Your task to perform on an android device: toggle notifications settings in the gmail app Image 0: 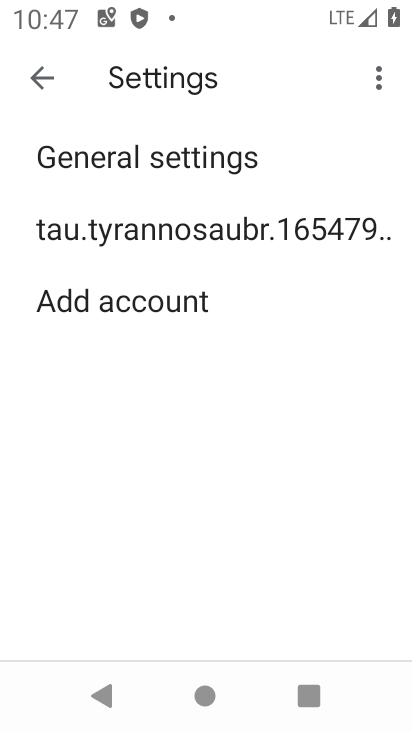
Step 0: press home button
Your task to perform on an android device: toggle notifications settings in the gmail app Image 1: 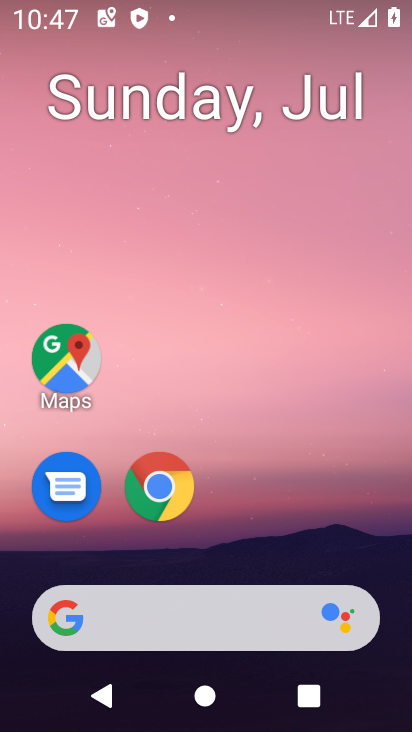
Step 1: drag from (312, 506) to (322, 172)
Your task to perform on an android device: toggle notifications settings in the gmail app Image 2: 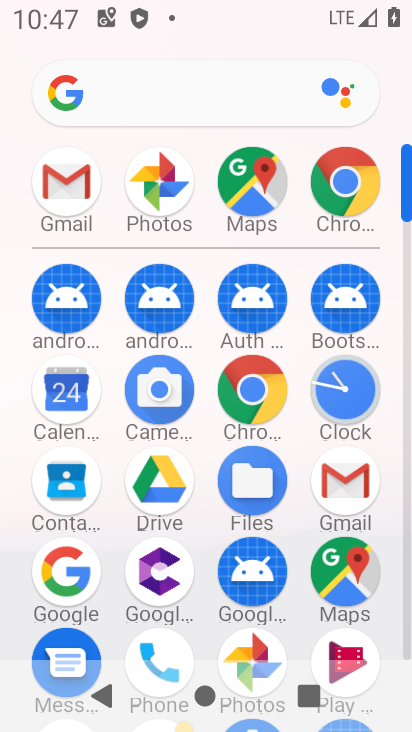
Step 2: click (341, 484)
Your task to perform on an android device: toggle notifications settings in the gmail app Image 3: 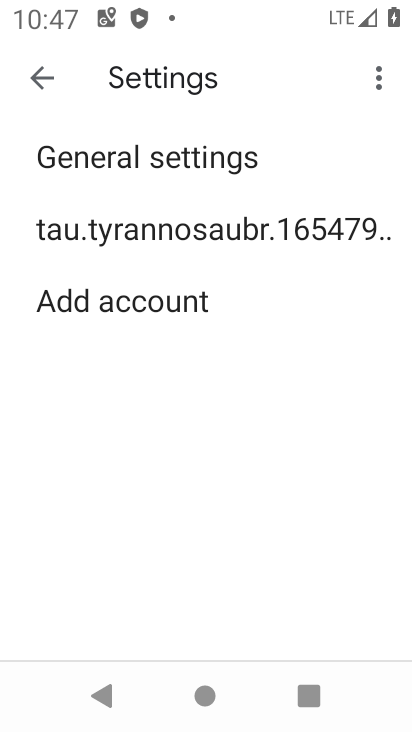
Step 3: click (265, 236)
Your task to perform on an android device: toggle notifications settings in the gmail app Image 4: 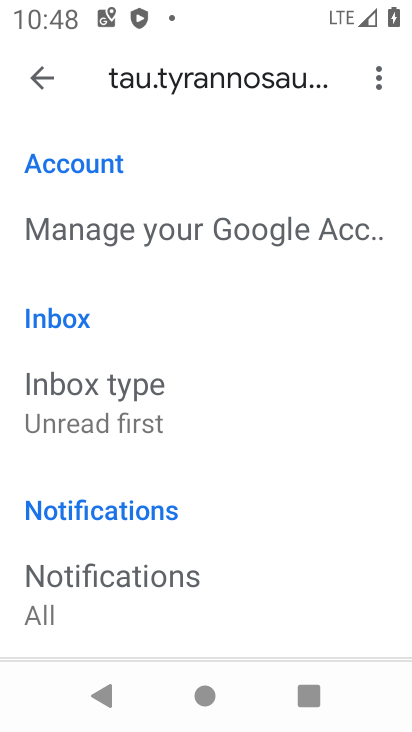
Step 4: drag from (280, 452) to (288, 372)
Your task to perform on an android device: toggle notifications settings in the gmail app Image 5: 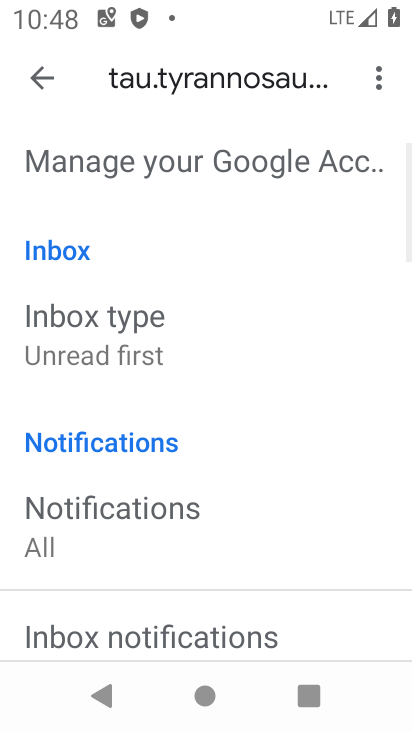
Step 5: drag from (273, 482) to (272, 382)
Your task to perform on an android device: toggle notifications settings in the gmail app Image 6: 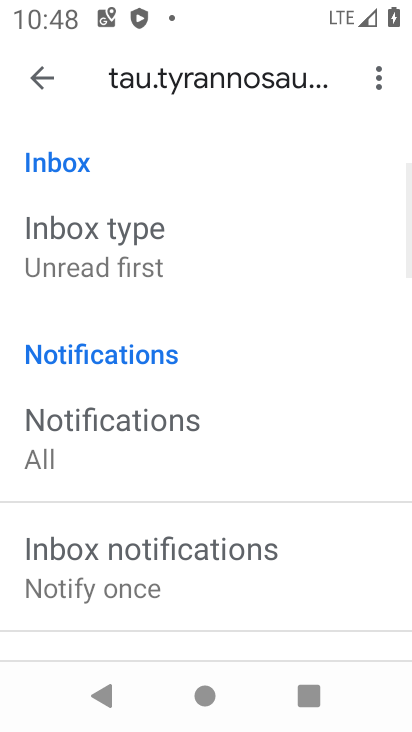
Step 6: drag from (303, 497) to (303, 387)
Your task to perform on an android device: toggle notifications settings in the gmail app Image 7: 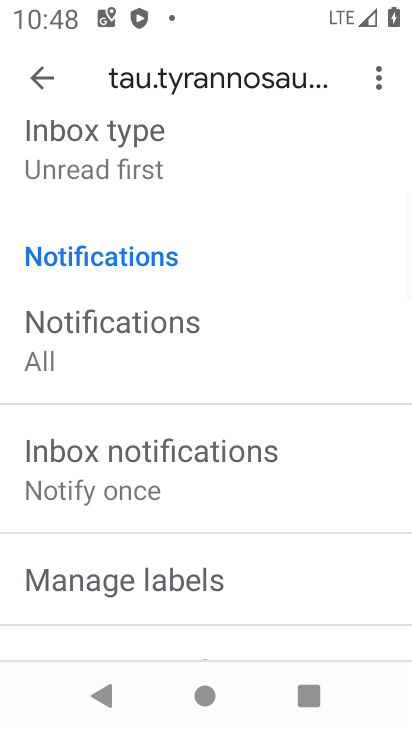
Step 7: drag from (317, 526) to (311, 425)
Your task to perform on an android device: toggle notifications settings in the gmail app Image 8: 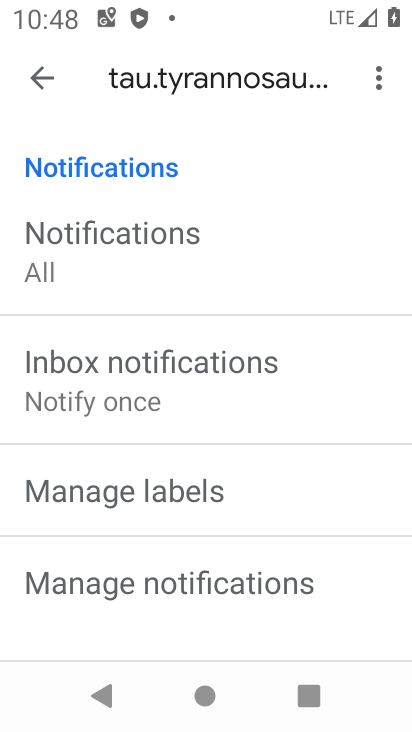
Step 8: drag from (309, 552) to (309, 451)
Your task to perform on an android device: toggle notifications settings in the gmail app Image 9: 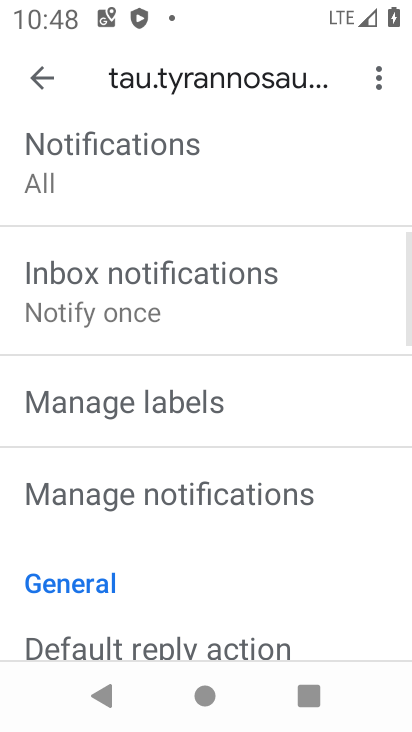
Step 9: drag from (300, 579) to (301, 461)
Your task to perform on an android device: toggle notifications settings in the gmail app Image 10: 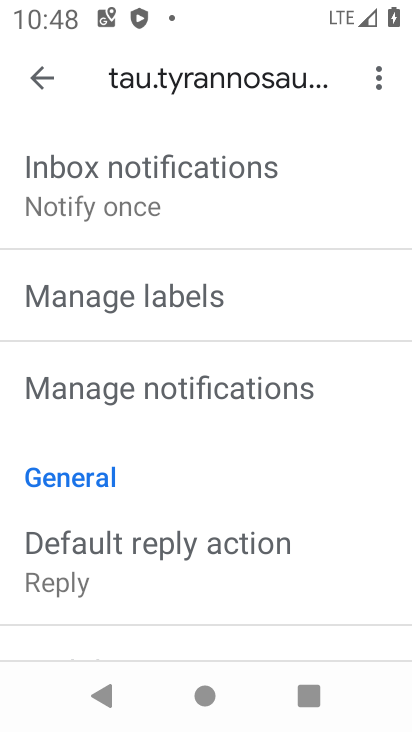
Step 10: click (325, 391)
Your task to perform on an android device: toggle notifications settings in the gmail app Image 11: 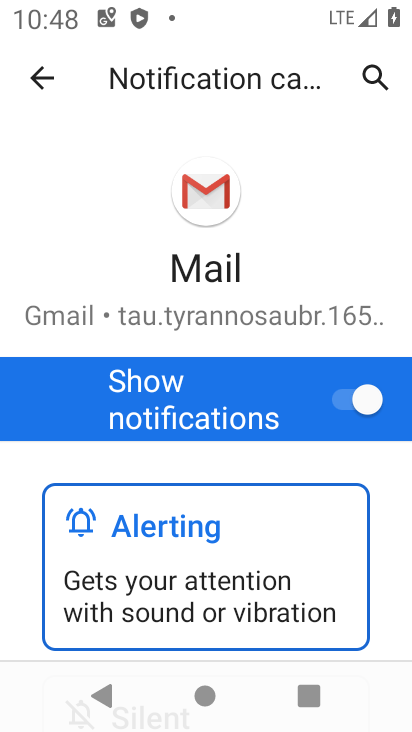
Step 11: click (367, 407)
Your task to perform on an android device: toggle notifications settings in the gmail app Image 12: 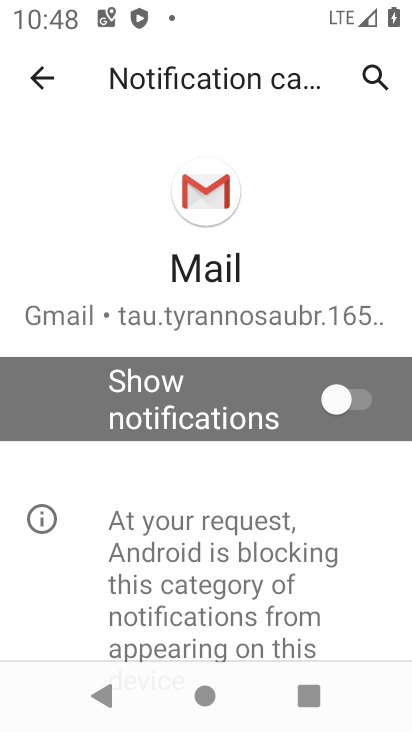
Step 12: task complete